Your task to perform on an android device: Open battery settings Image 0: 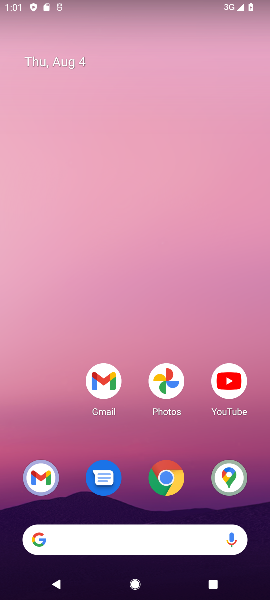
Step 0: drag from (68, 419) to (82, 81)
Your task to perform on an android device: Open battery settings Image 1: 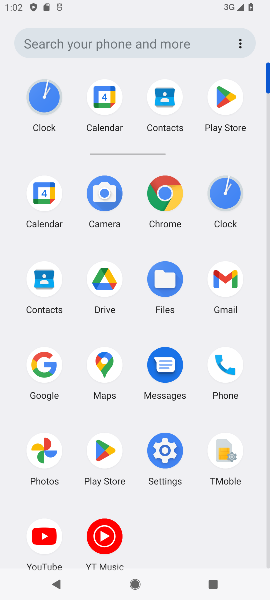
Step 1: click (151, 450)
Your task to perform on an android device: Open battery settings Image 2: 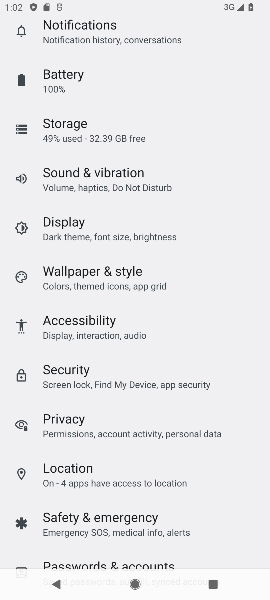
Step 2: click (53, 94)
Your task to perform on an android device: Open battery settings Image 3: 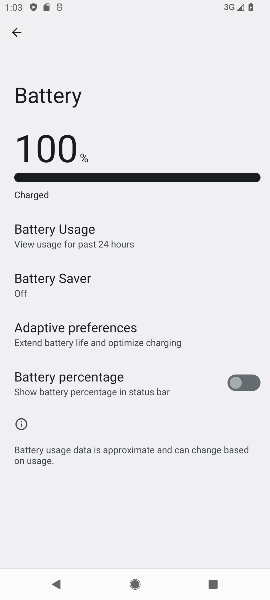
Step 3: task complete